Your task to perform on an android device: Open settings on Google Maps Image 0: 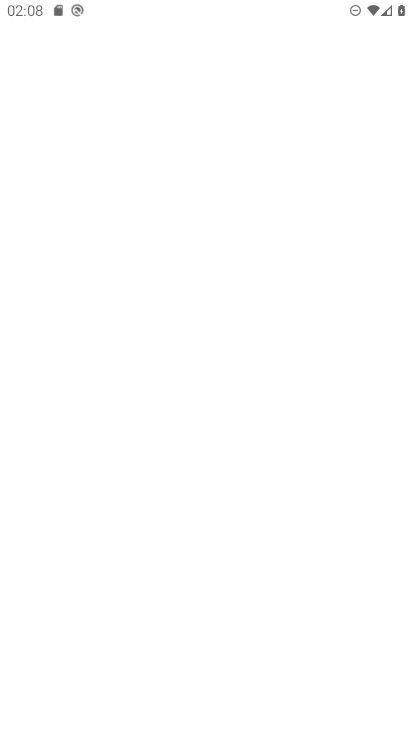
Step 0: drag from (254, 616) to (252, 350)
Your task to perform on an android device: Open settings on Google Maps Image 1: 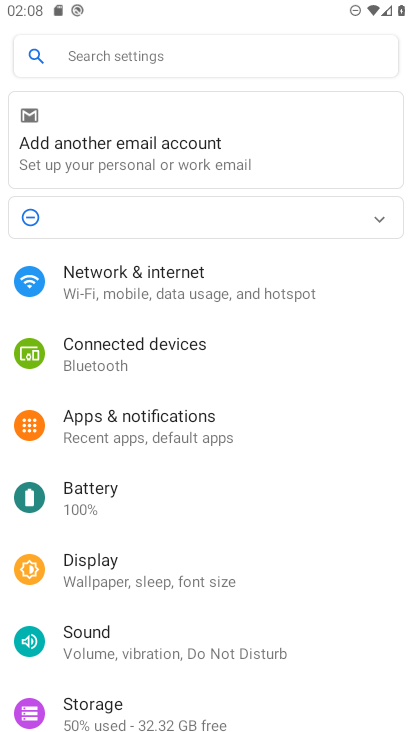
Step 1: press home button
Your task to perform on an android device: Open settings on Google Maps Image 2: 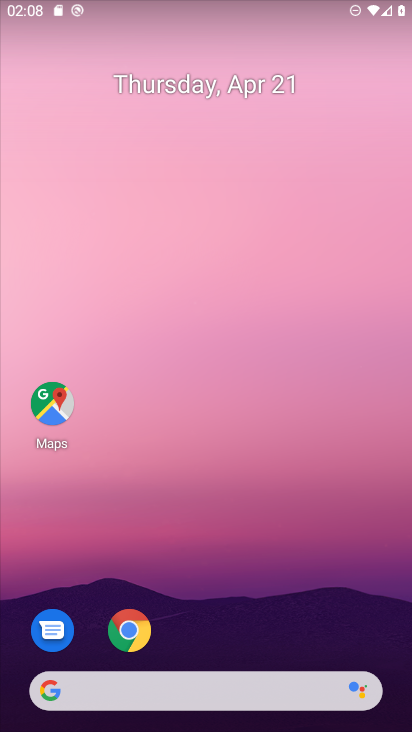
Step 2: click (62, 421)
Your task to perform on an android device: Open settings on Google Maps Image 3: 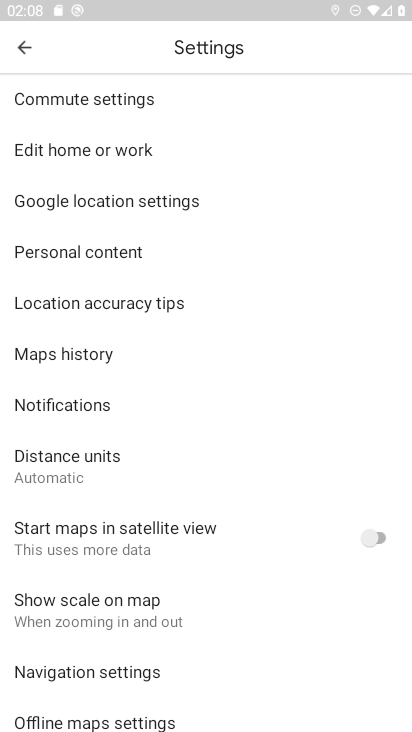
Step 3: task complete